Your task to perform on an android device: all mails in gmail Image 0: 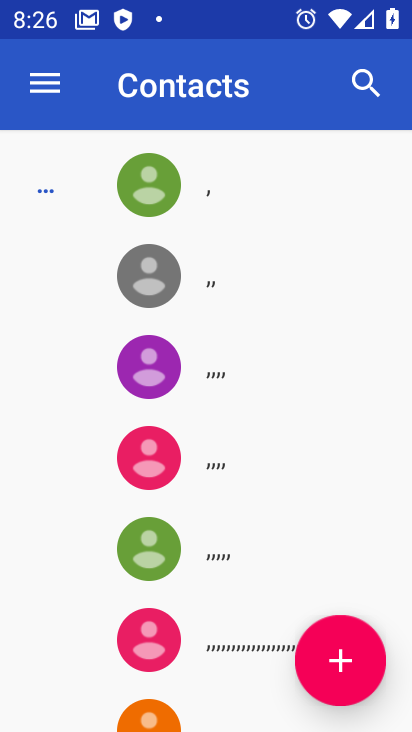
Step 0: press home button
Your task to perform on an android device: all mails in gmail Image 1: 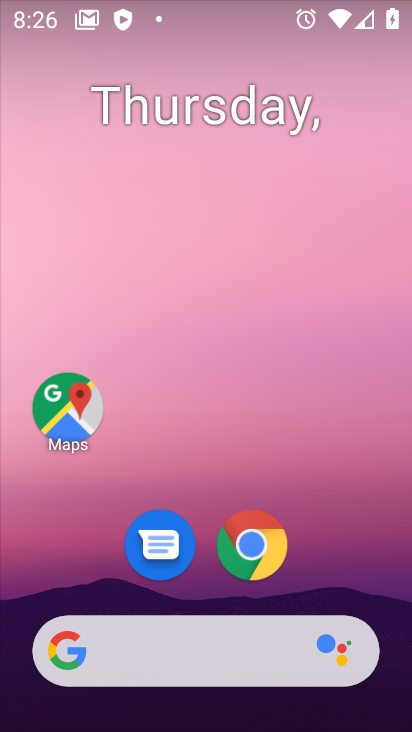
Step 1: drag from (221, 600) to (205, 146)
Your task to perform on an android device: all mails in gmail Image 2: 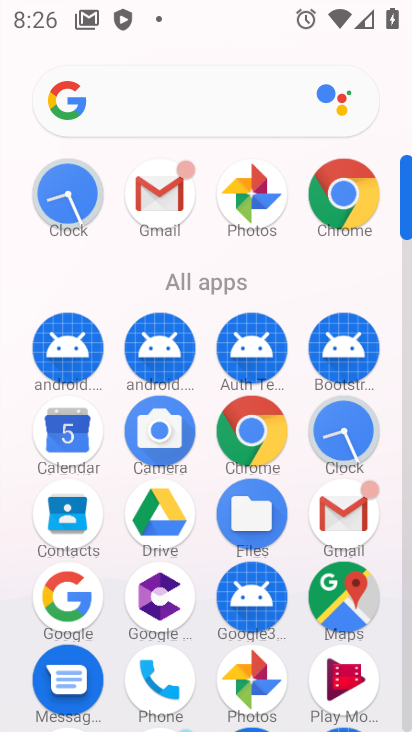
Step 2: click (157, 187)
Your task to perform on an android device: all mails in gmail Image 3: 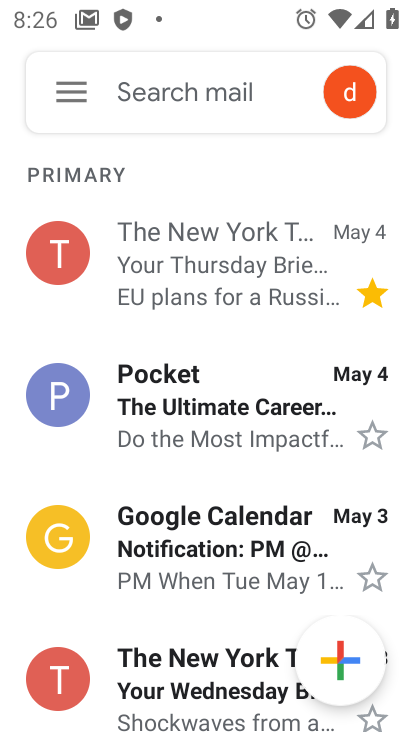
Step 3: click (54, 76)
Your task to perform on an android device: all mails in gmail Image 4: 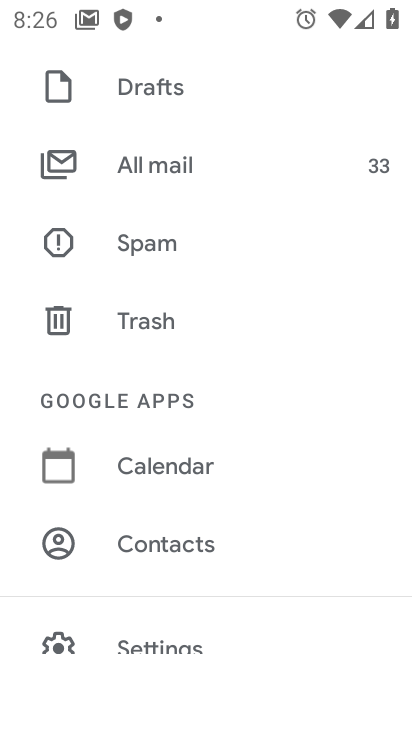
Step 4: click (84, 155)
Your task to perform on an android device: all mails in gmail Image 5: 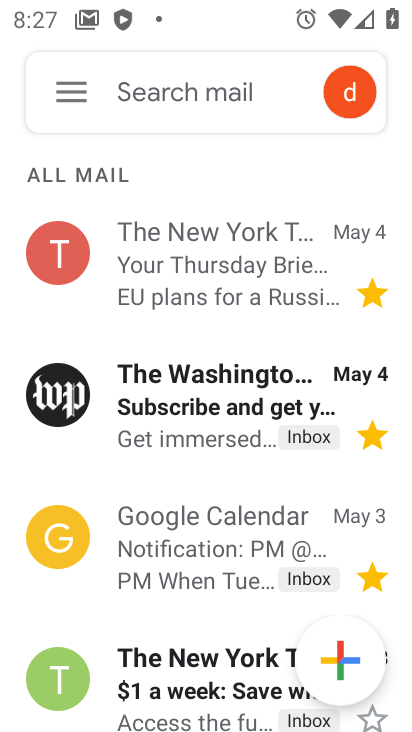
Step 5: task complete